Your task to perform on an android device: Open battery settings Image 0: 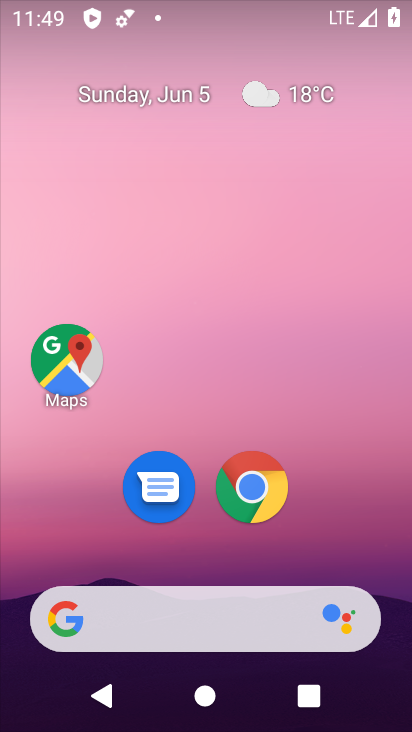
Step 0: drag from (384, 538) to (365, 124)
Your task to perform on an android device: Open battery settings Image 1: 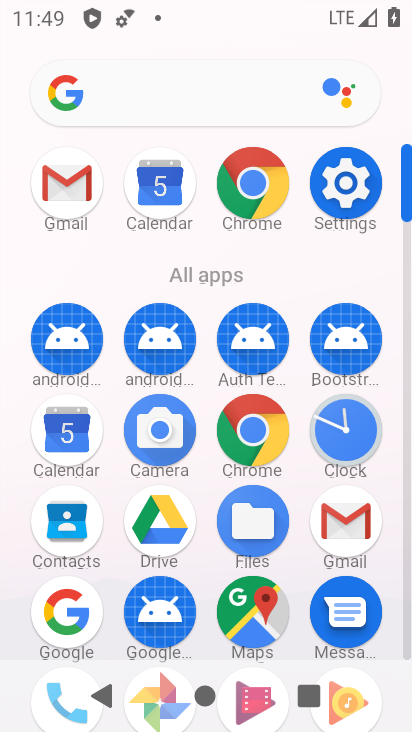
Step 1: click (366, 179)
Your task to perform on an android device: Open battery settings Image 2: 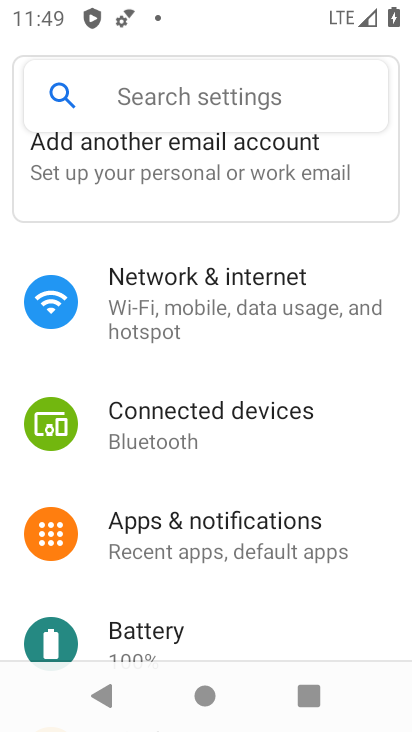
Step 2: click (166, 624)
Your task to perform on an android device: Open battery settings Image 3: 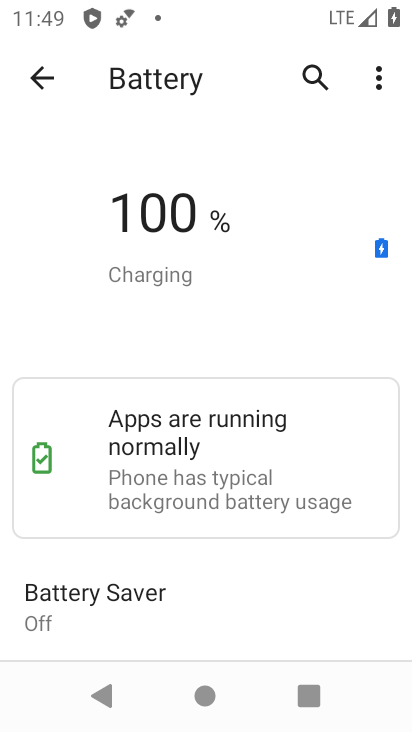
Step 3: task complete